Your task to perform on an android device: turn on javascript in the chrome app Image 0: 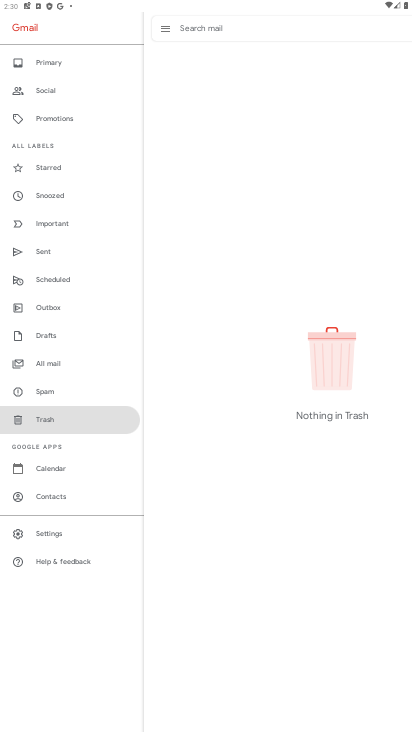
Step 0: press home button
Your task to perform on an android device: turn on javascript in the chrome app Image 1: 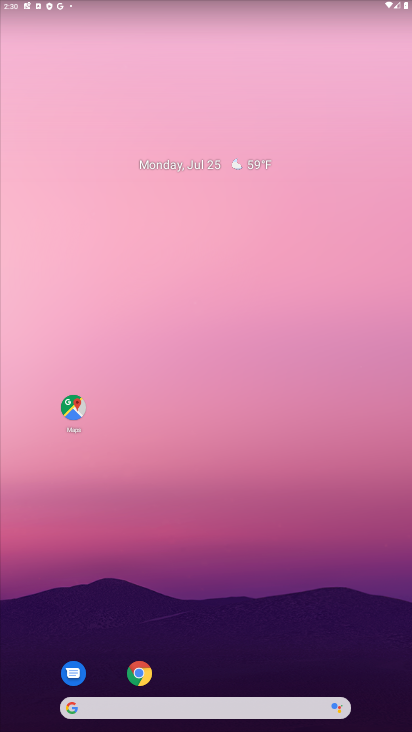
Step 1: click (134, 675)
Your task to perform on an android device: turn on javascript in the chrome app Image 2: 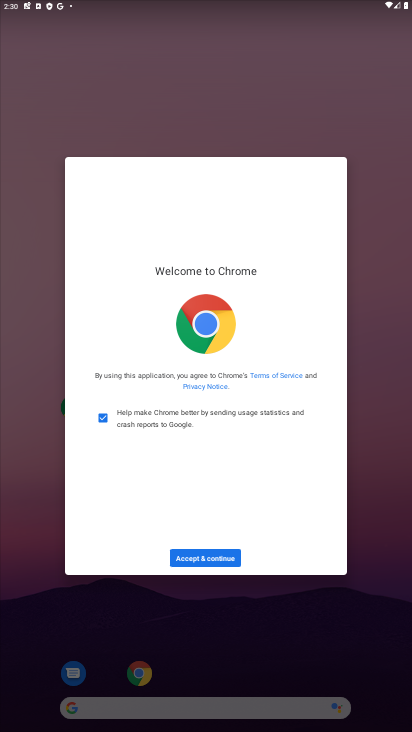
Step 2: click (196, 558)
Your task to perform on an android device: turn on javascript in the chrome app Image 3: 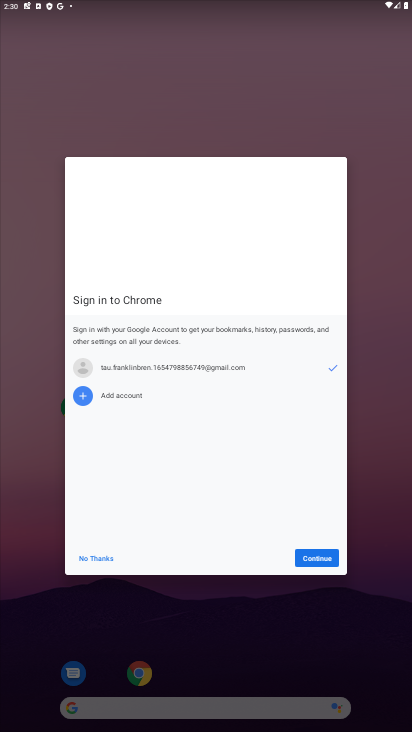
Step 3: click (316, 559)
Your task to perform on an android device: turn on javascript in the chrome app Image 4: 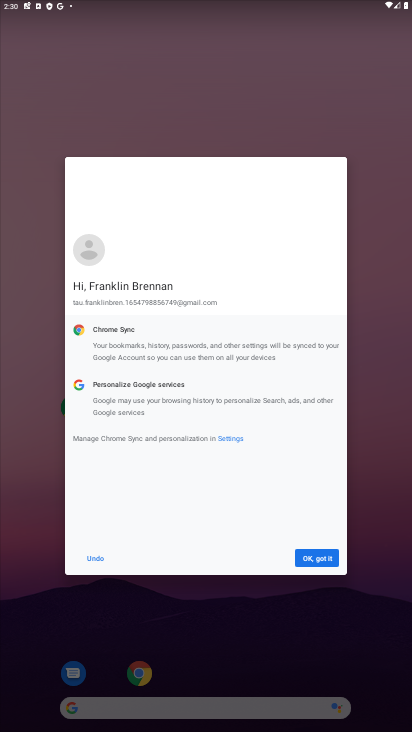
Step 4: click (316, 559)
Your task to perform on an android device: turn on javascript in the chrome app Image 5: 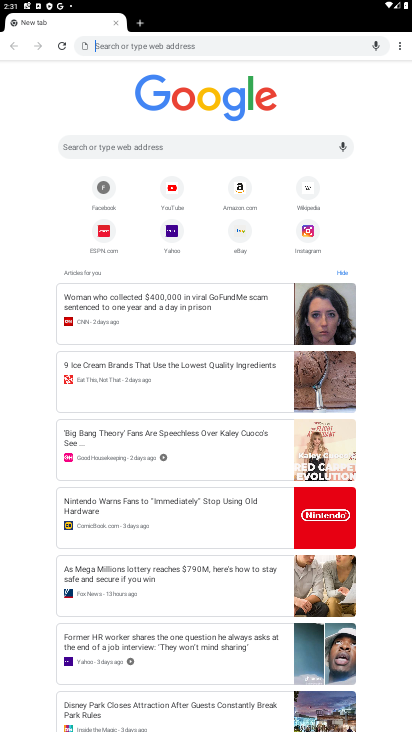
Step 5: click (404, 52)
Your task to perform on an android device: turn on javascript in the chrome app Image 6: 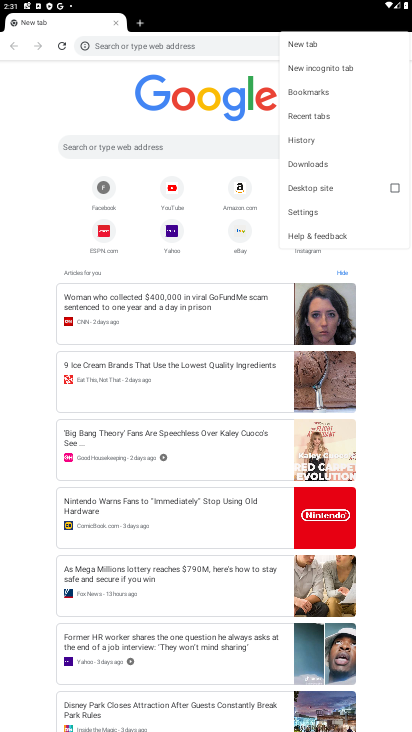
Step 6: click (304, 222)
Your task to perform on an android device: turn on javascript in the chrome app Image 7: 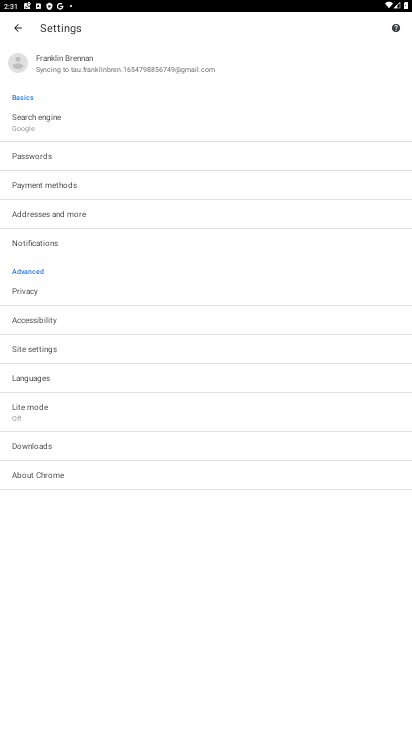
Step 7: click (64, 349)
Your task to perform on an android device: turn on javascript in the chrome app Image 8: 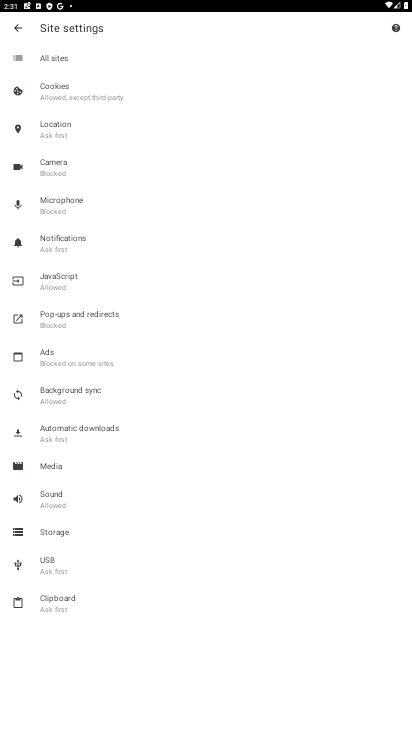
Step 8: click (83, 296)
Your task to perform on an android device: turn on javascript in the chrome app Image 9: 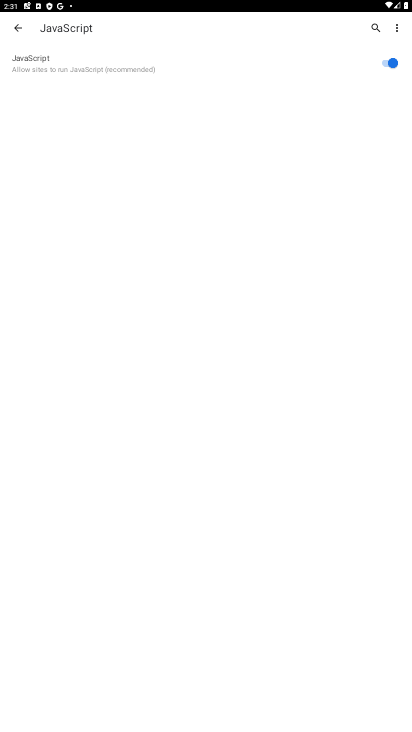
Step 9: task complete